Your task to perform on an android device: Do I have any events this weekend? Image 0: 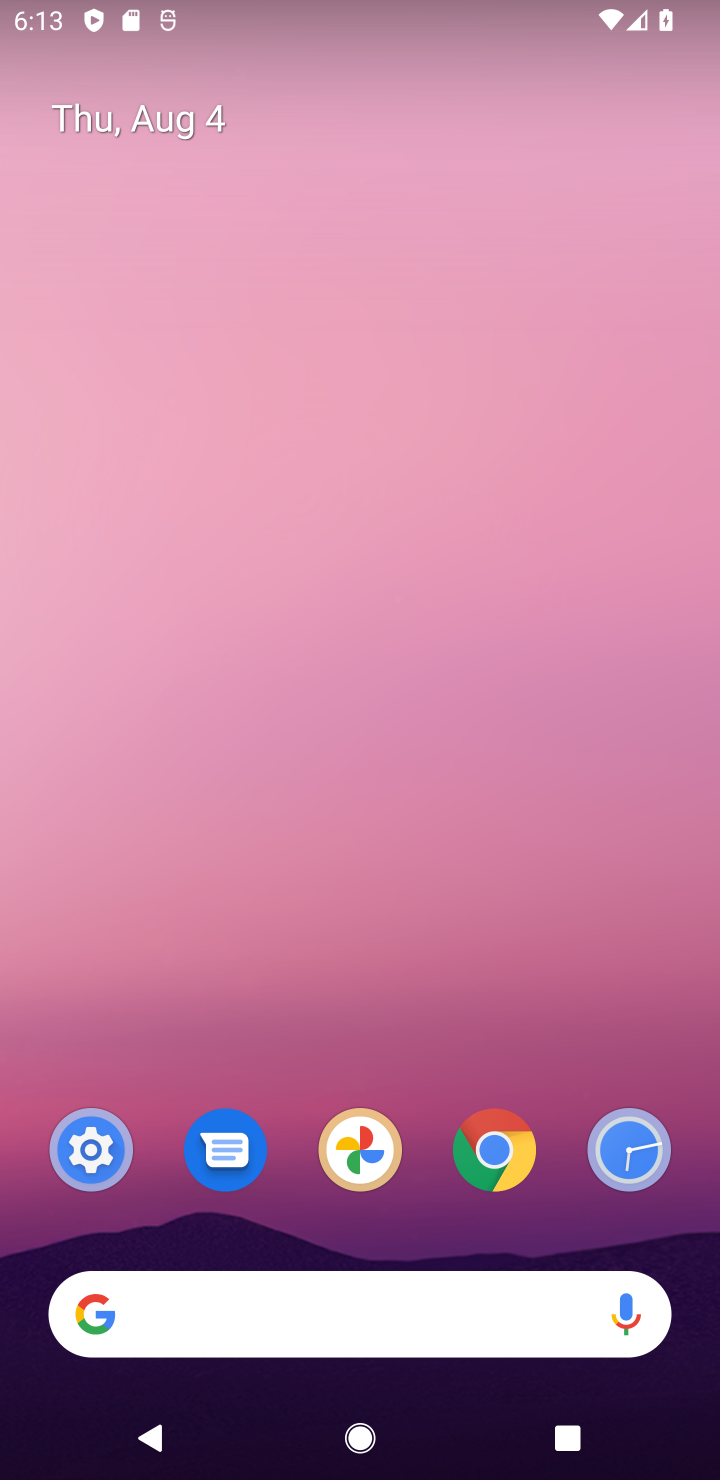
Step 0: drag from (383, 1277) to (222, 1)
Your task to perform on an android device: Do I have any events this weekend? Image 1: 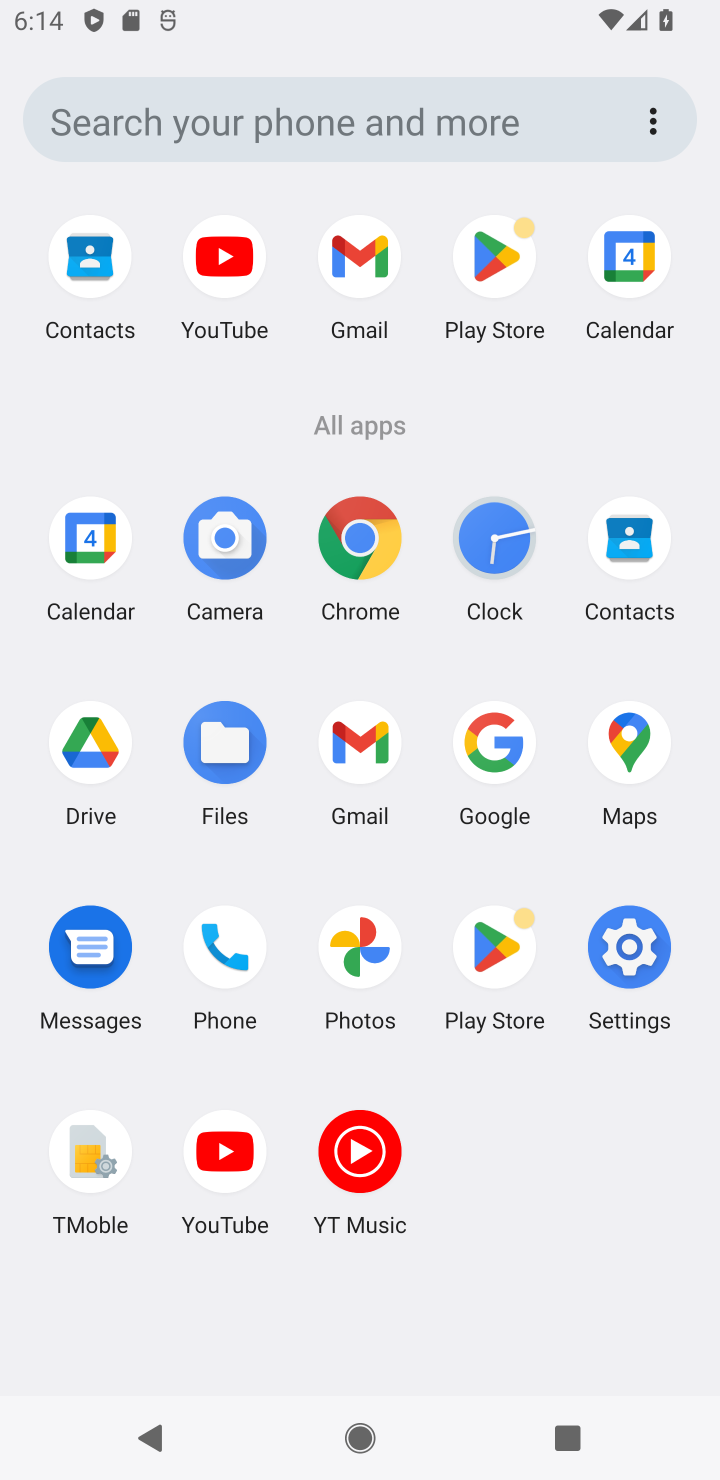
Step 1: click (100, 531)
Your task to perform on an android device: Do I have any events this weekend? Image 2: 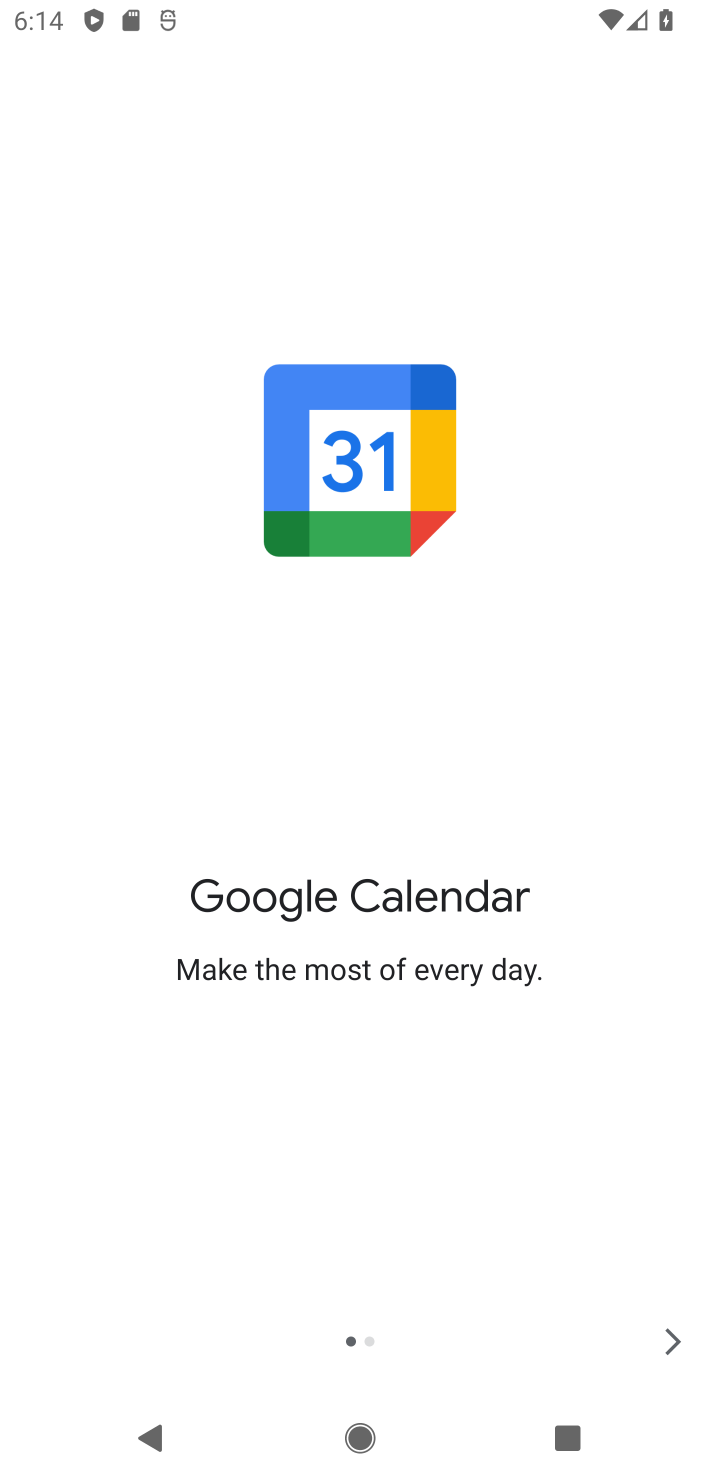
Step 2: click (665, 1341)
Your task to perform on an android device: Do I have any events this weekend? Image 3: 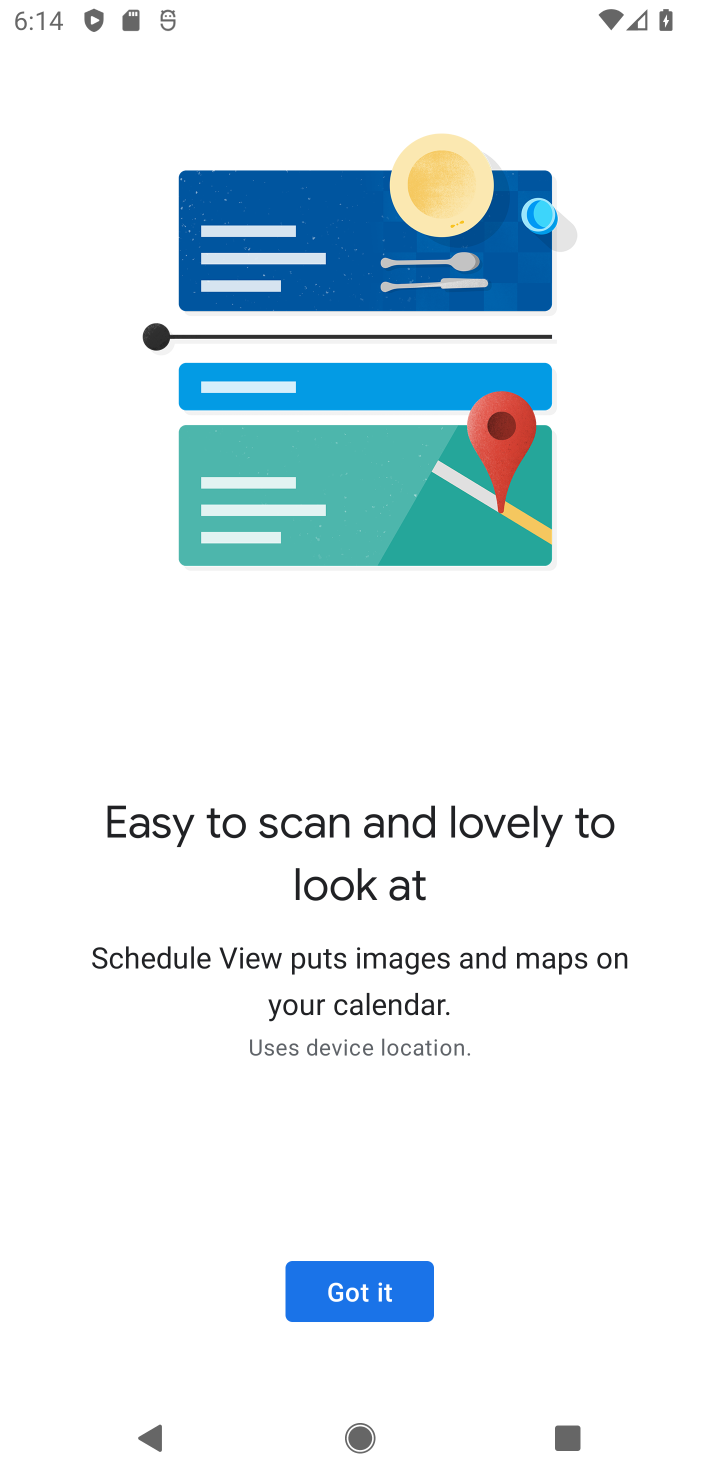
Step 3: click (667, 1339)
Your task to perform on an android device: Do I have any events this weekend? Image 4: 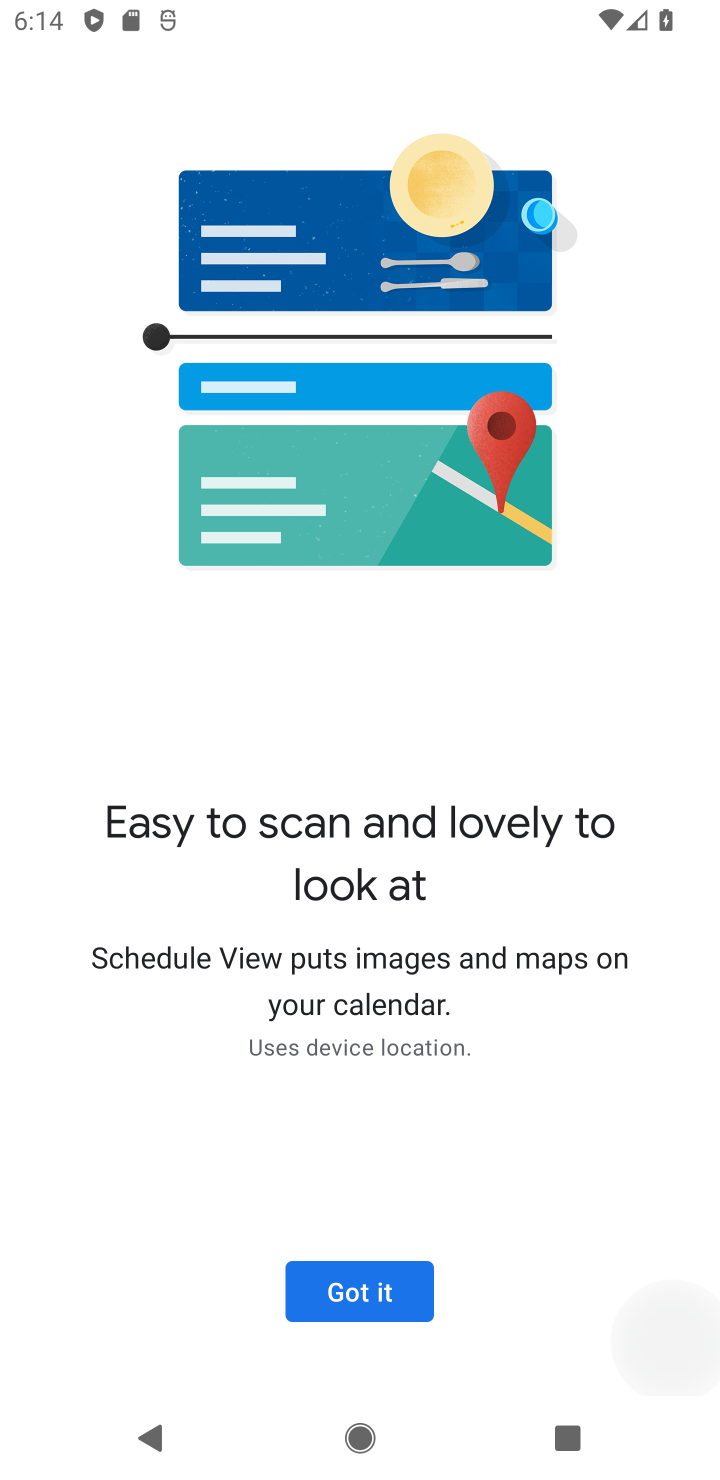
Step 4: click (378, 1285)
Your task to perform on an android device: Do I have any events this weekend? Image 5: 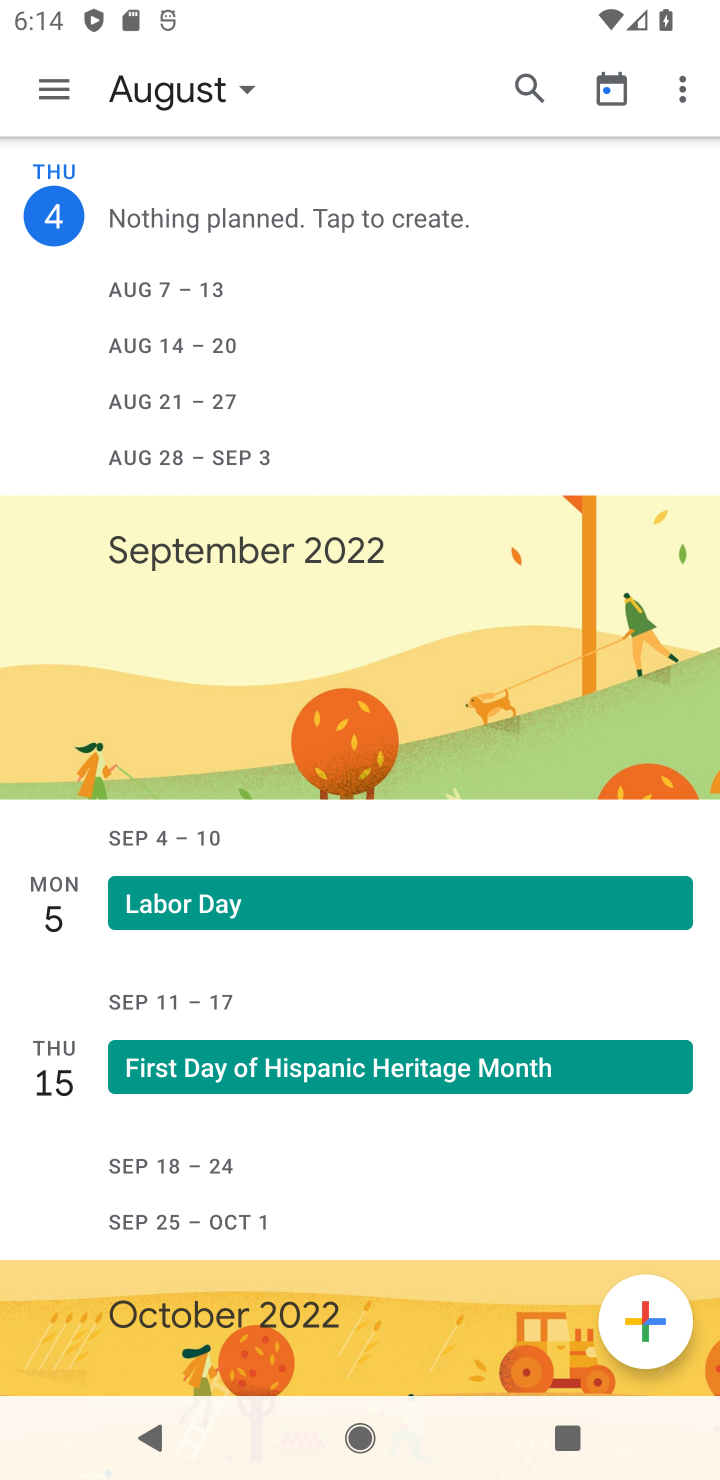
Step 5: click (241, 74)
Your task to perform on an android device: Do I have any events this weekend? Image 6: 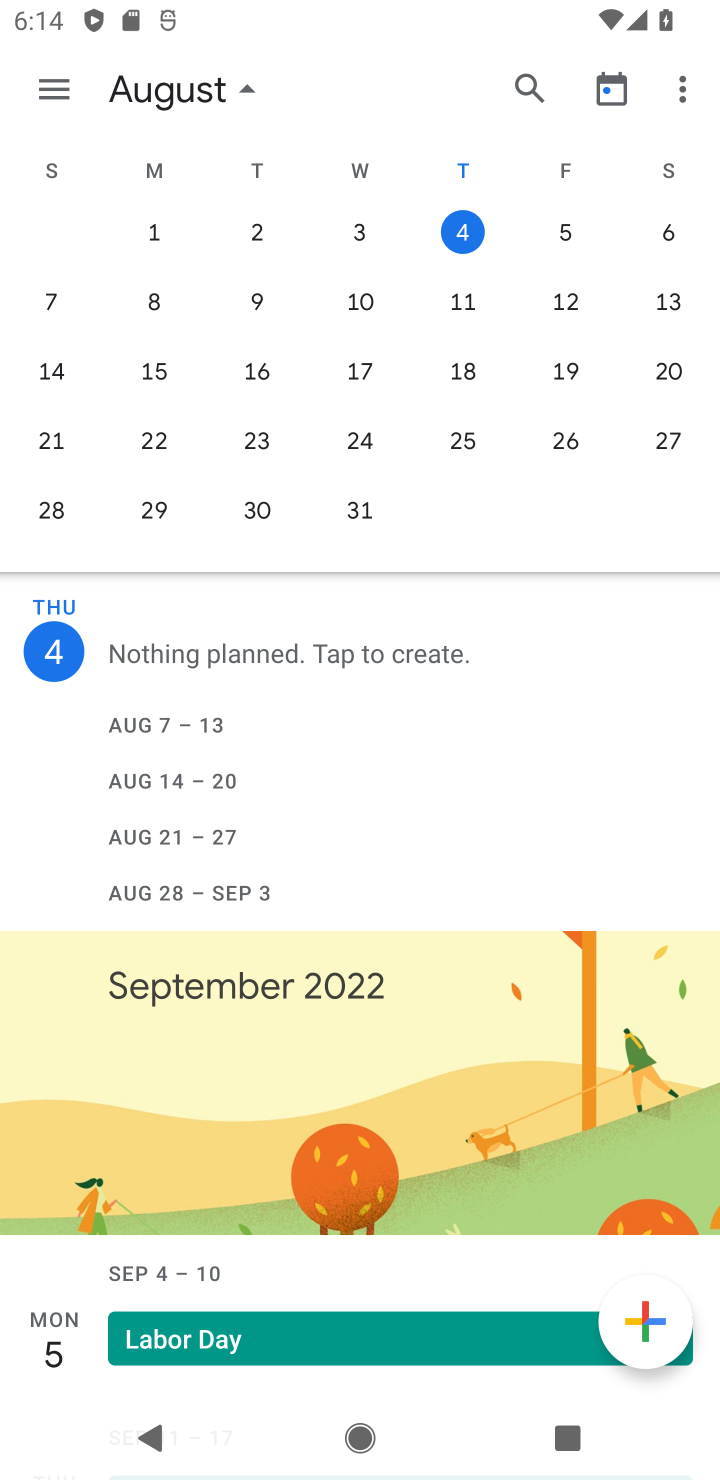
Step 6: click (659, 221)
Your task to perform on an android device: Do I have any events this weekend? Image 7: 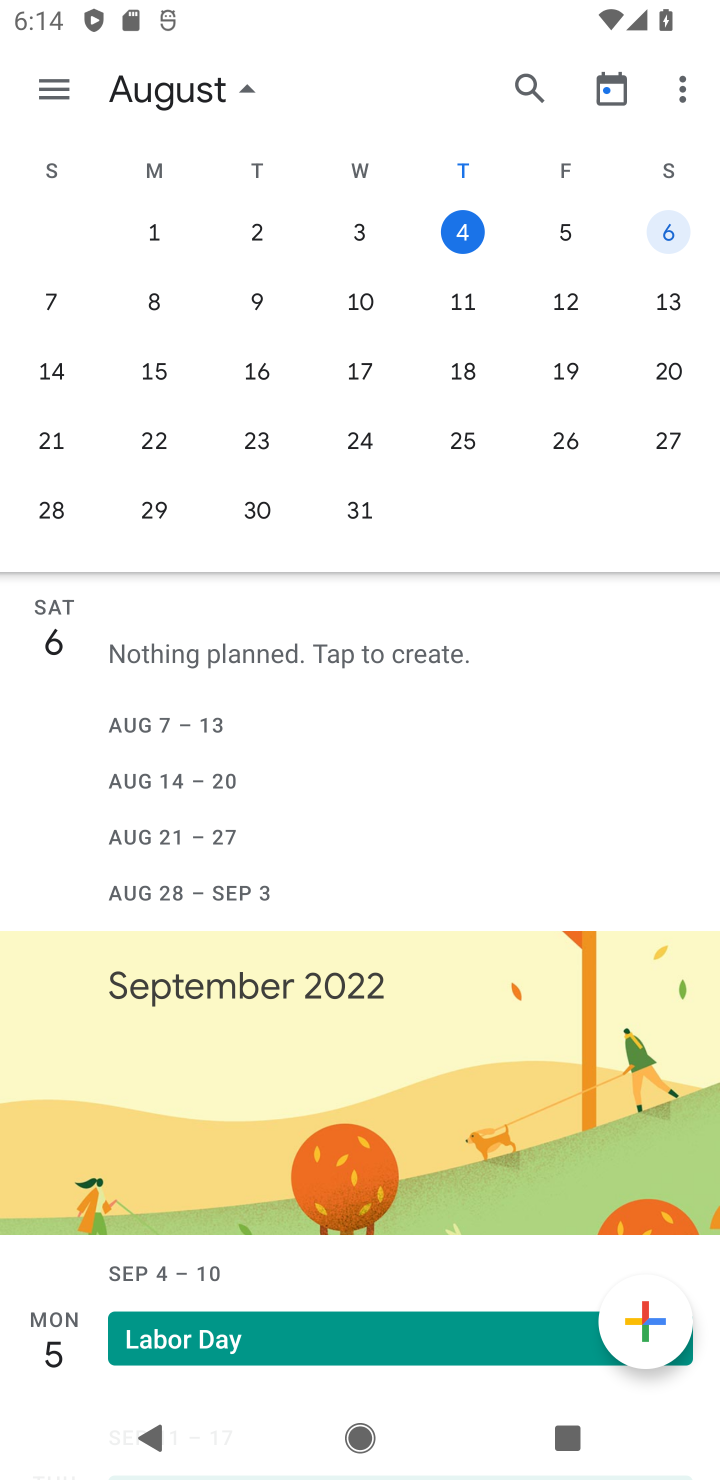
Step 7: task complete